Your task to perform on an android device: Open Chrome and go to the settings page Image 0: 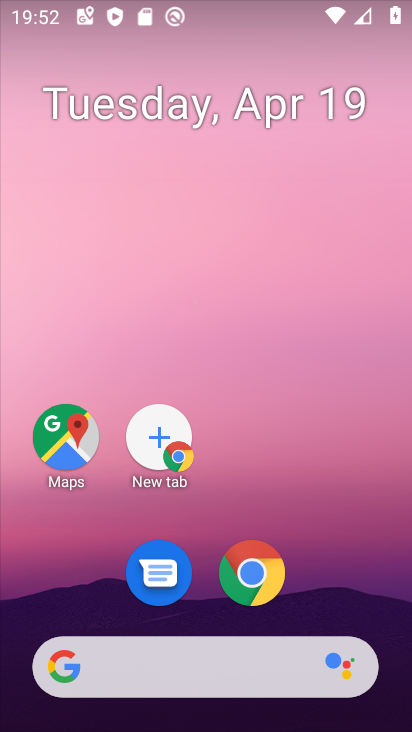
Step 0: click (247, 555)
Your task to perform on an android device: Open Chrome and go to the settings page Image 1: 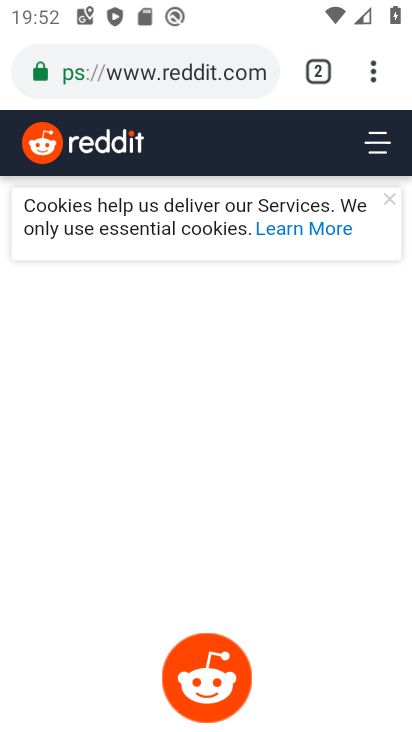
Step 1: click (375, 64)
Your task to perform on an android device: Open Chrome and go to the settings page Image 2: 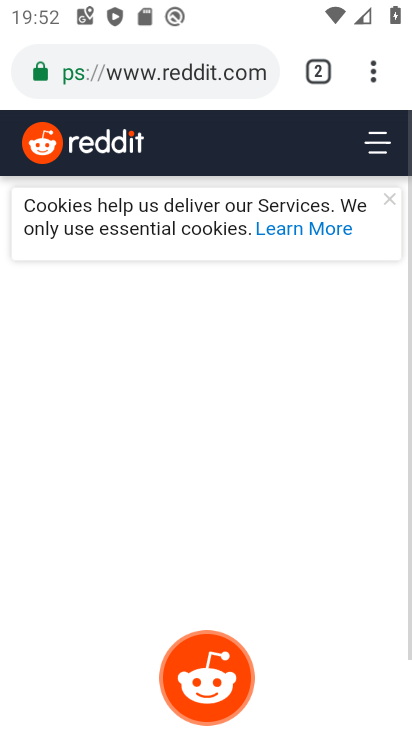
Step 2: click (376, 66)
Your task to perform on an android device: Open Chrome and go to the settings page Image 3: 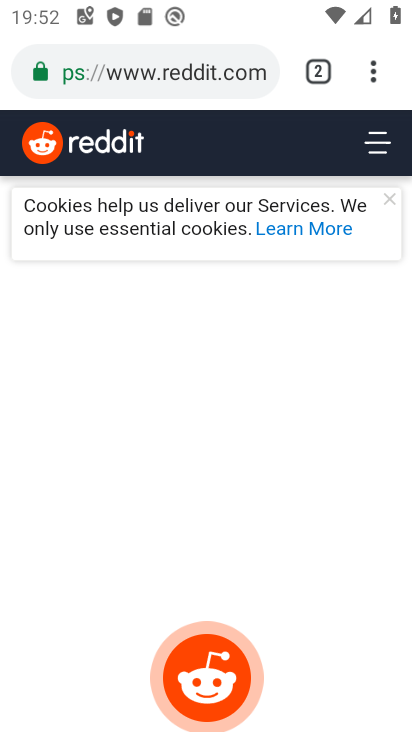
Step 3: click (368, 60)
Your task to perform on an android device: Open Chrome and go to the settings page Image 4: 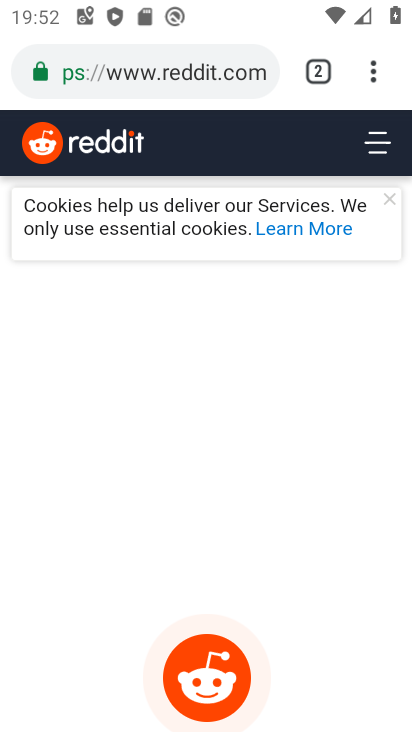
Step 4: click (368, 61)
Your task to perform on an android device: Open Chrome and go to the settings page Image 5: 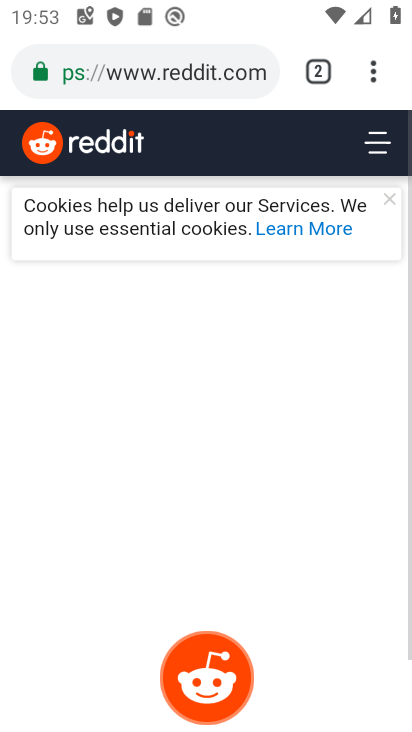
Step 5: click (368, 61)
Your task to perform on an android device: Open Chrome and go to the settings page Image 6: 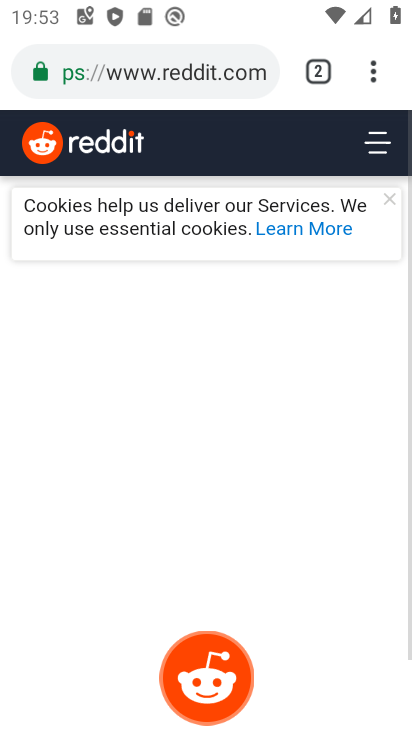
Step 6: click (368, 61)
Your task to perform on an android device: Open Chrome and go to the settings page Image 7: 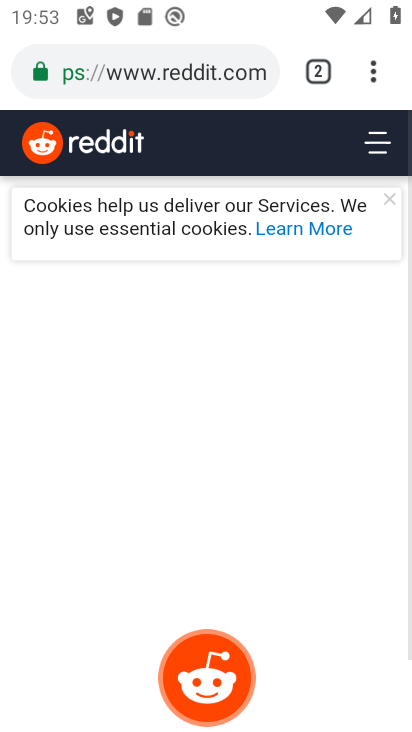
Step 7: click (368, 61)
Your task to perform on an android device: Open Chrome and go to the settings page Image 8: 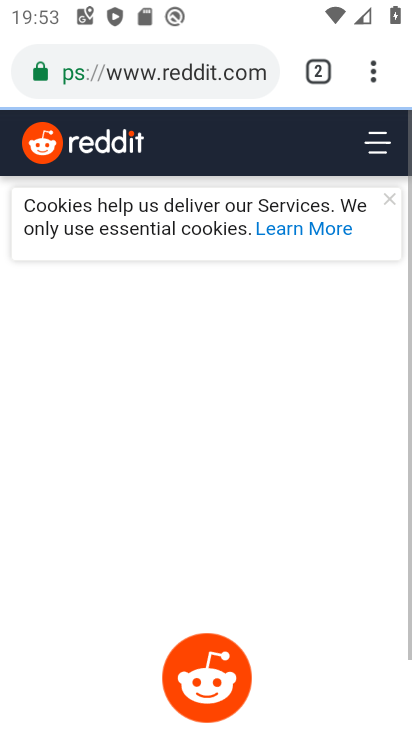
Step 8: click (368, 61)
Your task to perform on an android device: Open Chrome and go to the settings page Image 9: 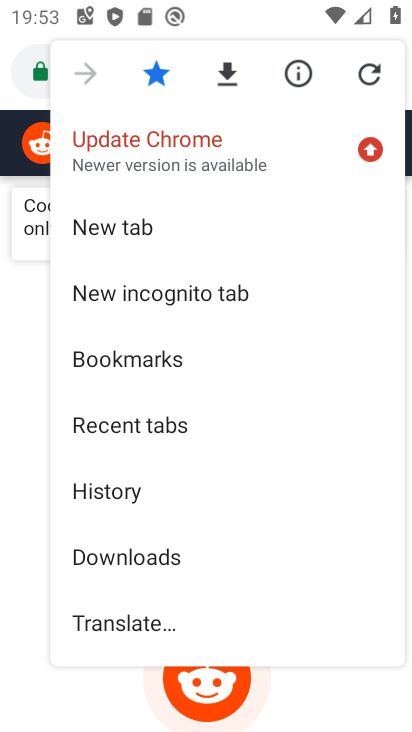
Step 9: drag from (268, 602) to (318, 203)
Your task to perform on an android device: Open Chrome and go to the settings page Image 10: 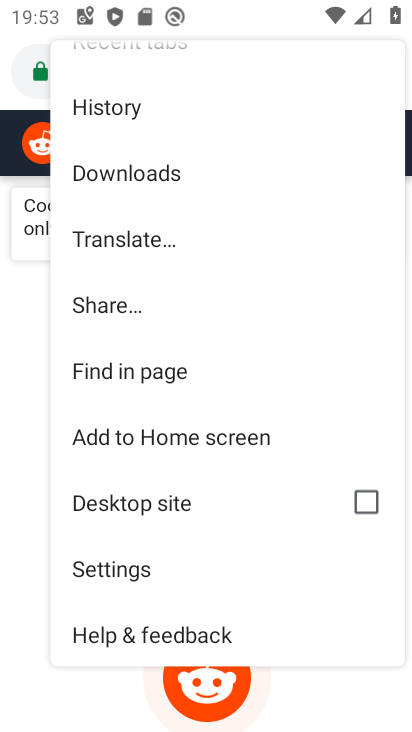
Step 10: click (84, 557)
Your task to perform on an android device: Open Chrome and go to the settings page Image 11: 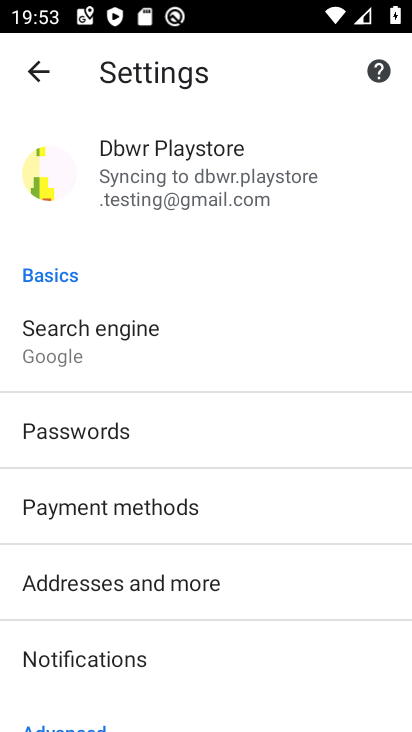
Step 11: click (329, 167)
Your task to perform on an android device: Open Chrome and go to the settings page Image 12: 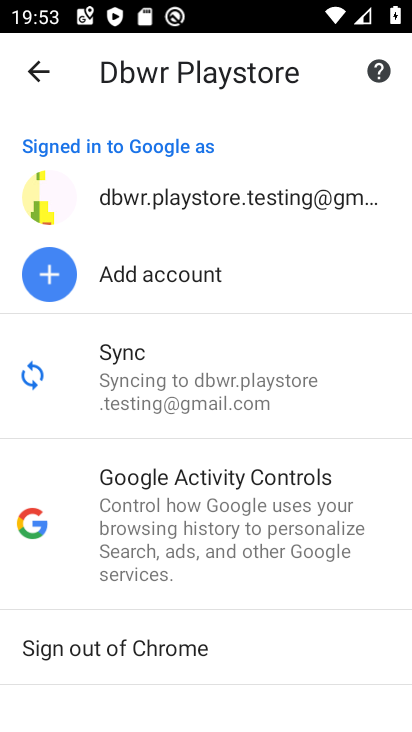
Step 12: task complete